Your task to perform on an android device: change text size in settings app Image 0: 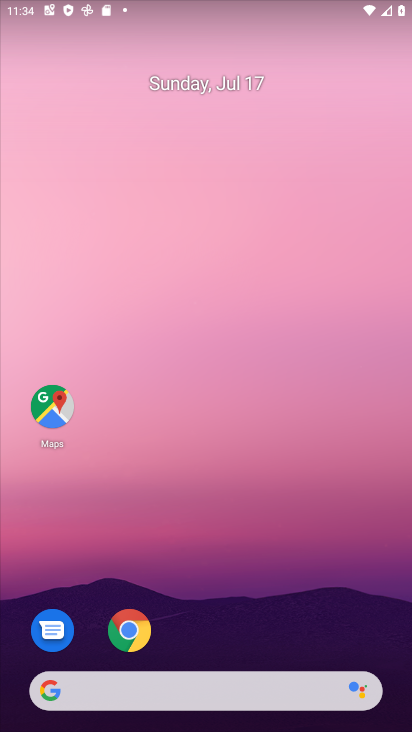
Step 0: drag from (310, 594) to (302, 208)
Your task to perform on an android device: change text size in settings app Image 1: 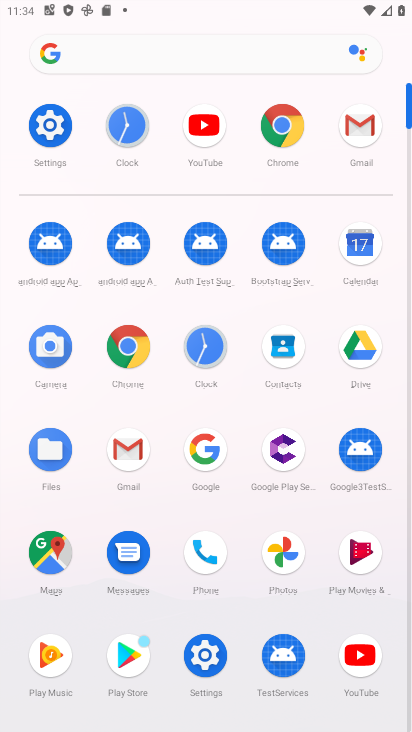
Step 1: click (196, 692)
Your task to perform on an android device: change text size in settings app Image 2: 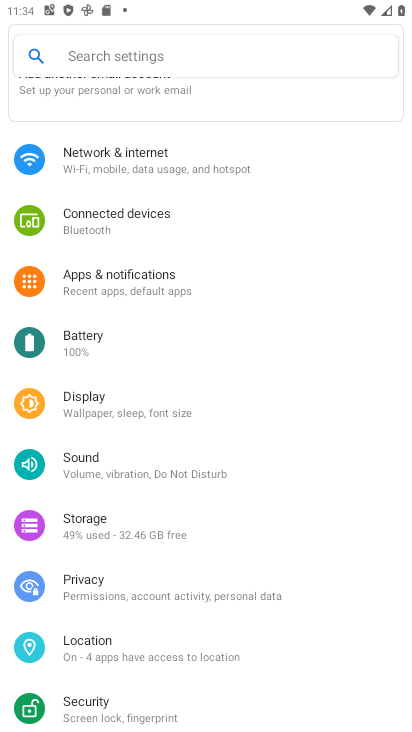
Step 2: task complete